Your task to perform on an android device: delete a single message in the gmail app Image 0: 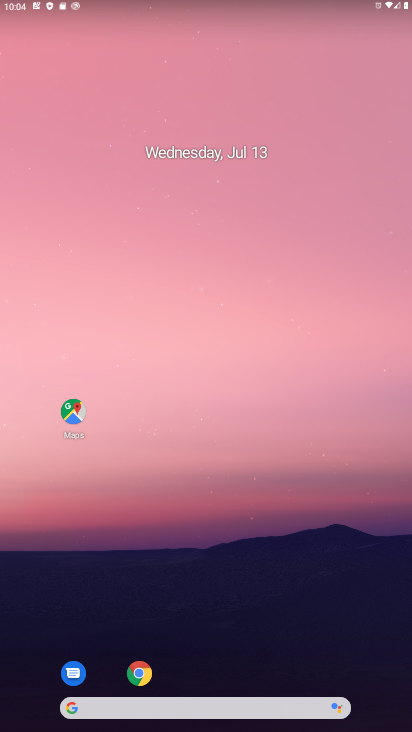
Step 0: drag from (176, 678) to (236, 80)
Your task to perform on an android device: delete a single message in the gmail app Image 1: 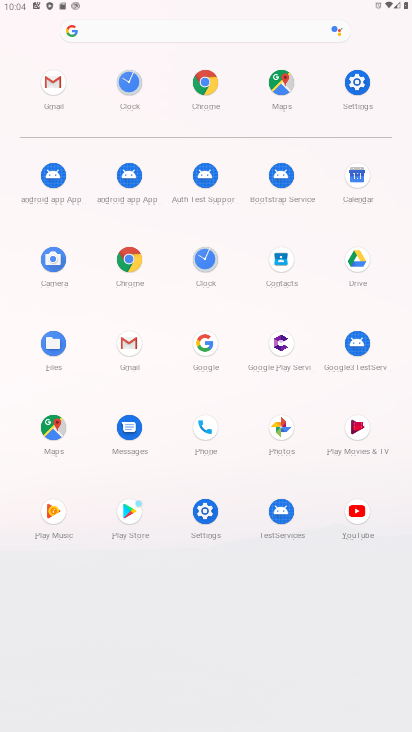
Step 1: click (45, 90)
Your task to perform on an android device: delete a single message in the gmail app Image 2: 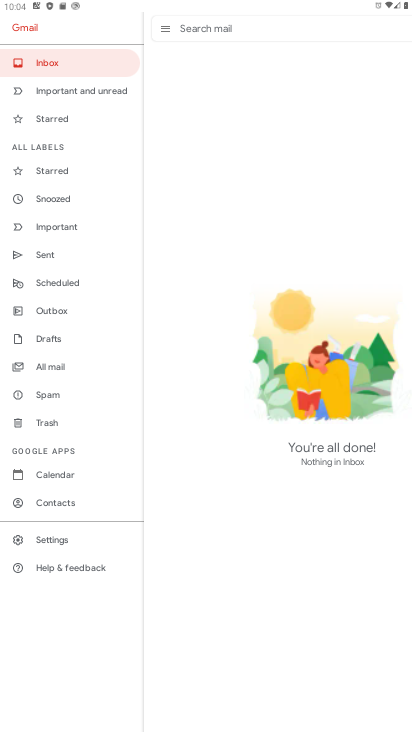
Step 2: click (38, 363)
Your task to perform on an android device: delete a single message in the gmail app Image 3: 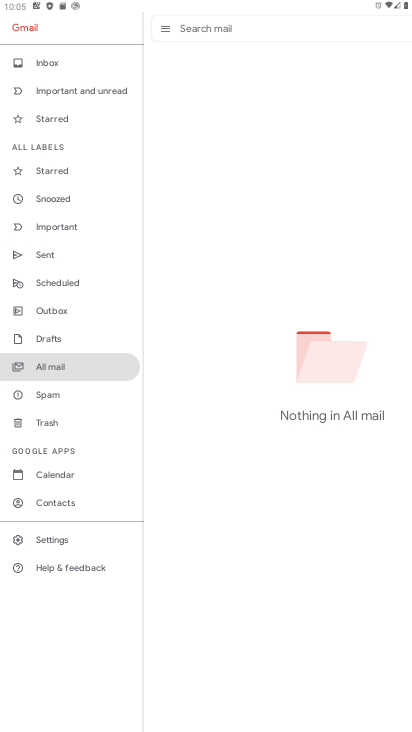
Step 3: task complete